Your task to perform on an android device: open chrome privacy settings Image 0: 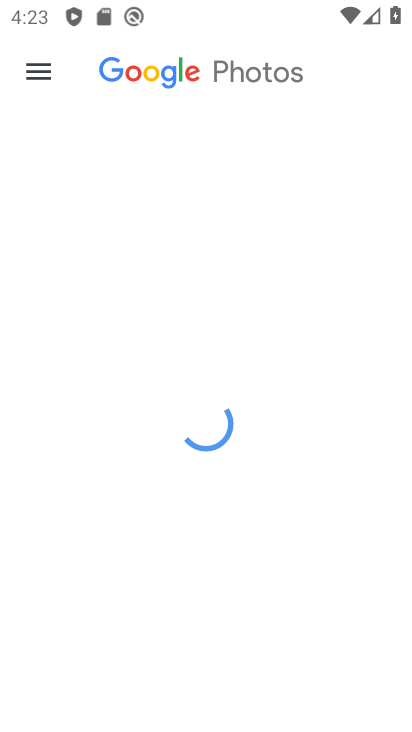
Step 0: press home button
Your task to perform on an android device: open chrome privacy settings Image 1: 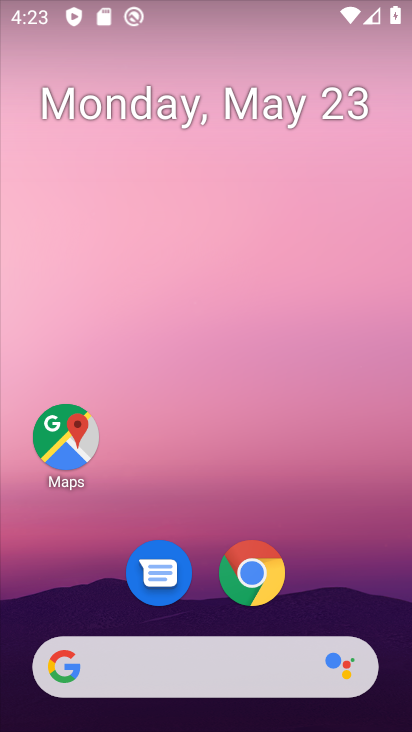
Step 1: drag from (213, 724) to (221, 112)
Your task to perform on an android device: open chrome privacy settings Image 2: 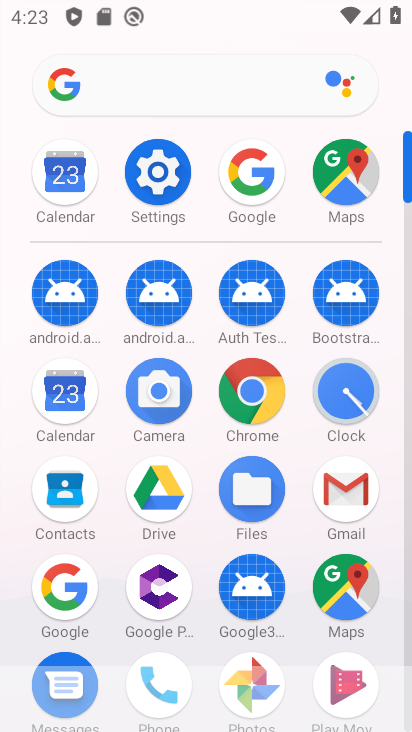
Step 2: click (257, 397)
Your task to perform on an android device: open chrome privacy settings Image 3: 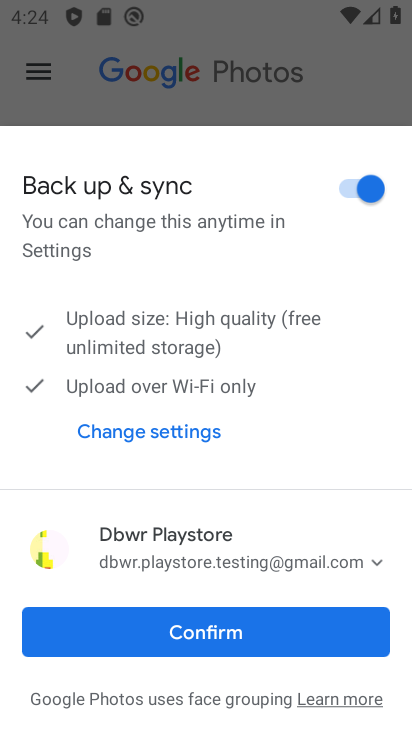
Step 3: press home button
Your task to perform on an android device: open chrome privacy settings Image 4: 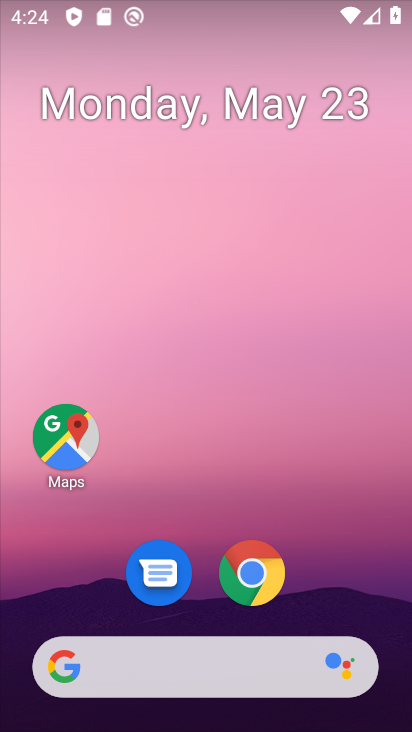
Step 4: click (253, 570)
Your task to perform on an android device: open chrome privacy settings Image 5: 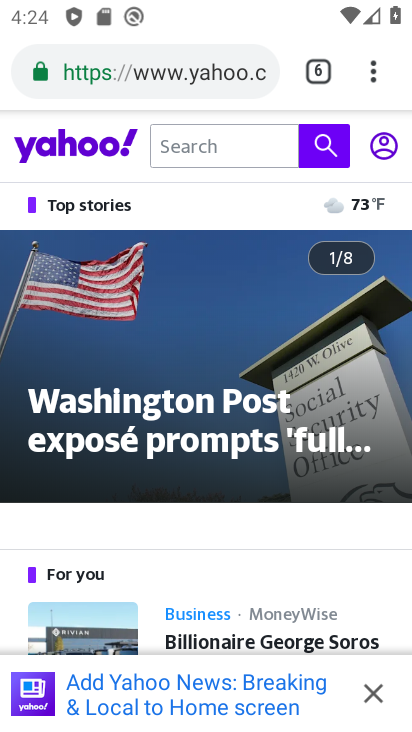
Step 5: click (375, 74)
Your task to perform on an android device: open chrome privacy settings Image 6: 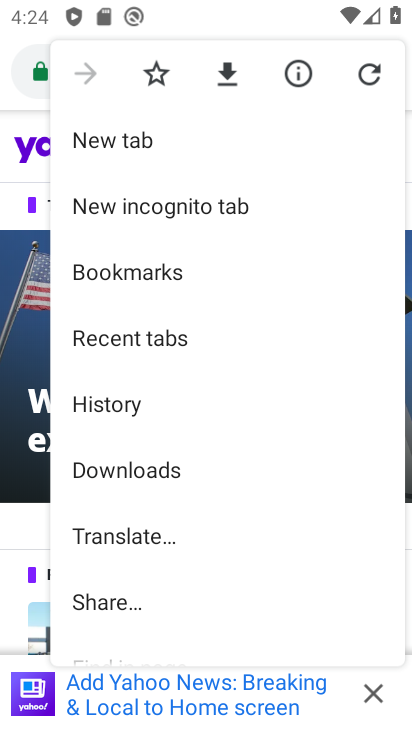
Step 6: drag from (135, 584) to (136, 212)
Your task to perform on an android device: open chrome privacy settings Image 7: 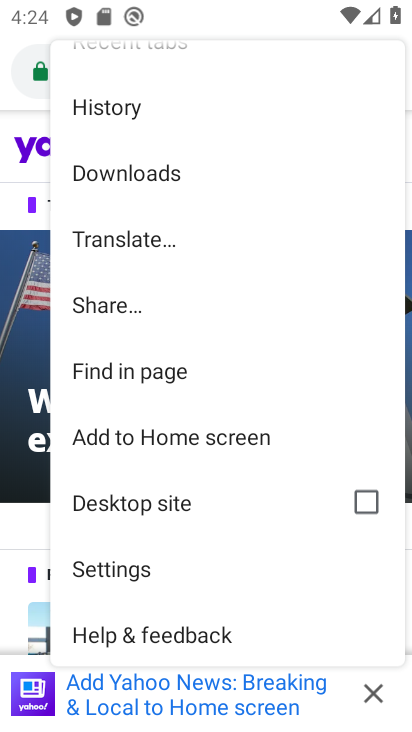
Step 7: click (116, 566)
Your task to perform on an android device: open chrome privacy settings Image 8: 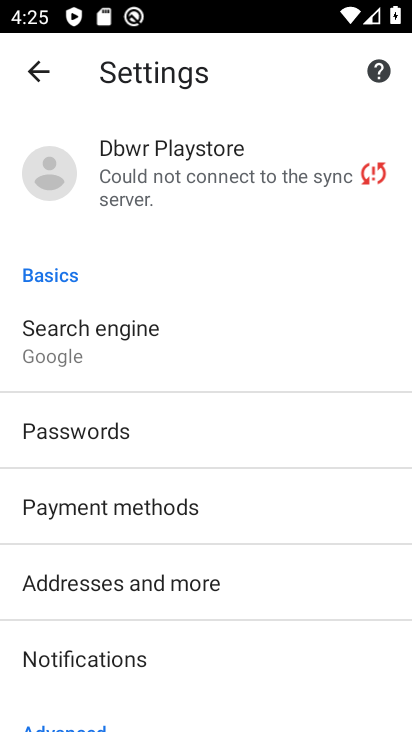
Step 8: drag from (130, 641) to (134, 322)
Your task to perform on an android device: open chrome privacy settings Image 9: 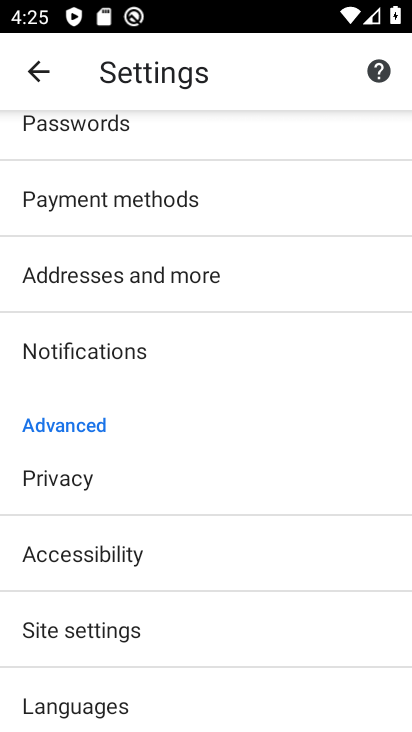
Step 9: drag from (124, 664) to (123, 390)
Your task to perform on an android device: open chrome privacy settings Image 10: 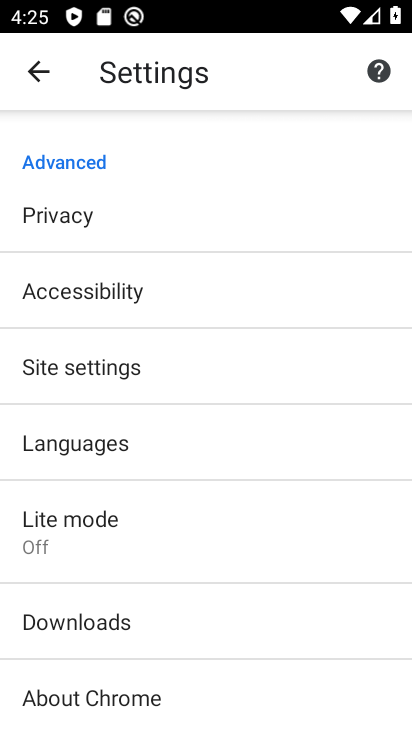
Step 10: click (63, 214)
Your task to perform on an android device: open chrome privacy settings Image 11: 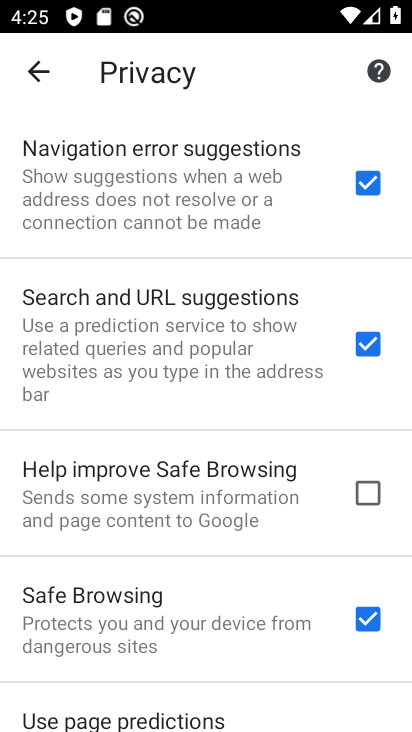
Step 11: task complete